Your task to perform on an android device: Open the web browser Image 0: 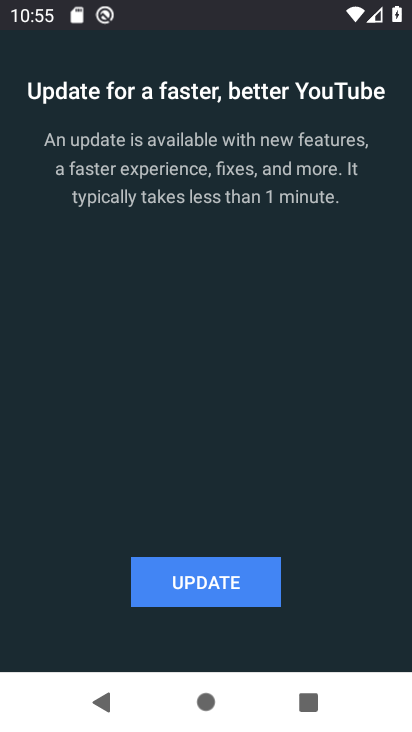
Step 0: drag from (366, 570) to (301, 431)
Your task to perform on an android device: Open the web browser Image 1: 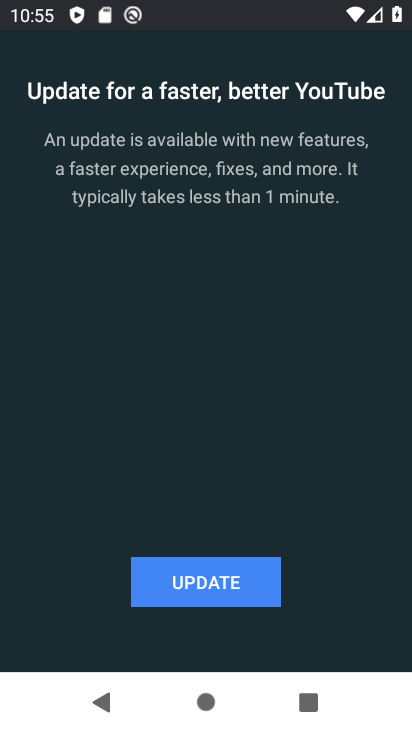
Step 1: press home button
Your task to perform on an android device: Open the web browser Image 2: 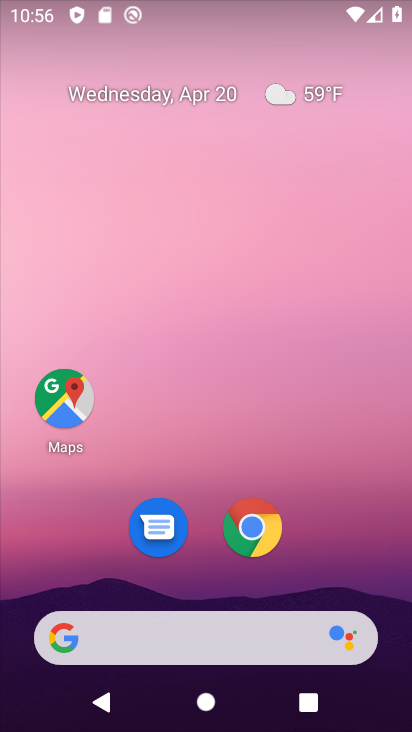
Step 2: drag from (343, 519) to (340, 135)
Your task to perform on an android device: Open the web browser Image 3: 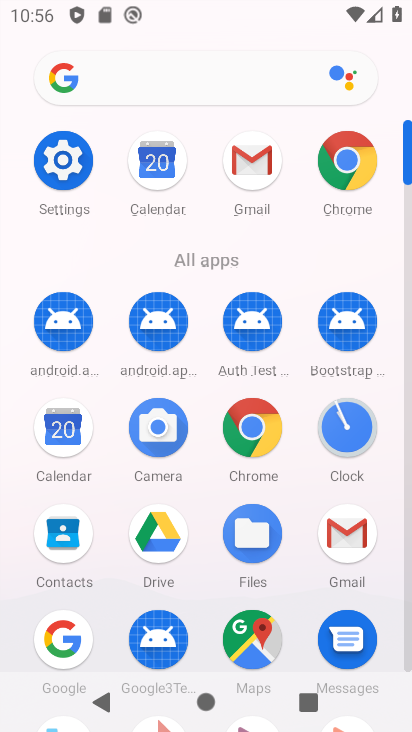
Step 3: click (258, 444)
Your task to perform on an android device: Open the web browser Image 4: 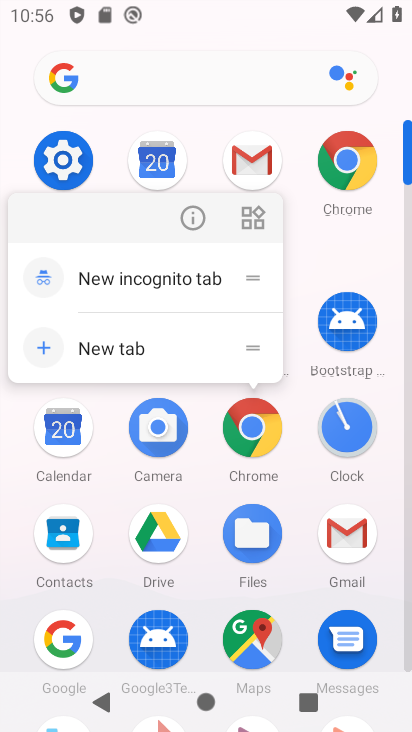
Step 4: click (263, 441)
Your task to perform on an android device: Open the web browser Image 5: 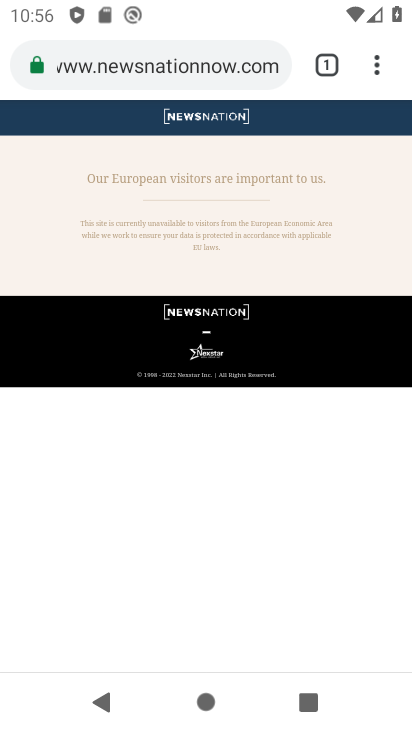
Step 5: task complete